Your task to perform on an android device: When is my next meeting? Image 0: 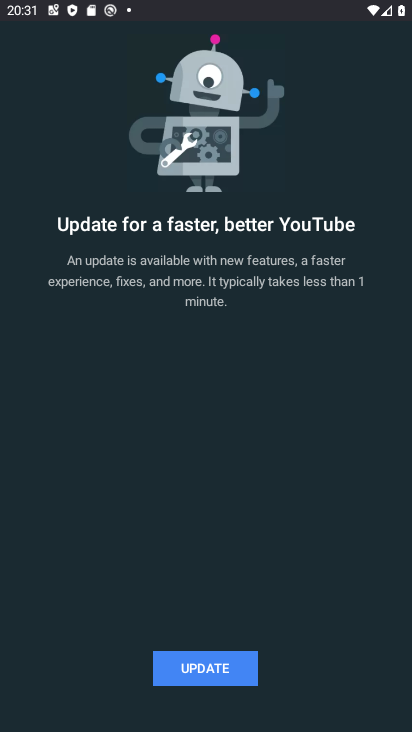
Step 0: press home button
Your task to perform on an android device: When is my next meeting? Image 1: 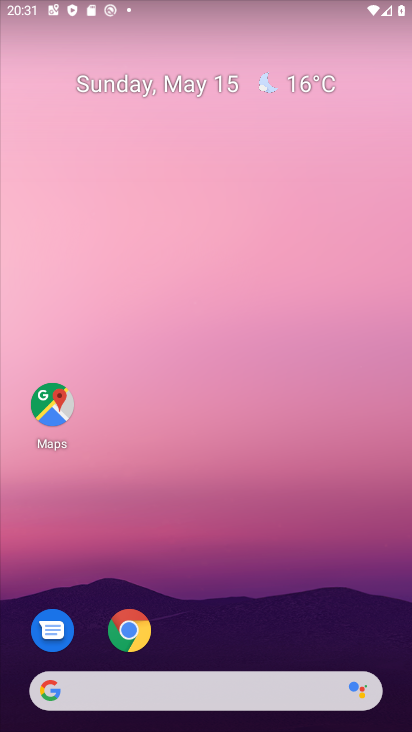
Step 1: drag from (234, 599) to (288, 111)
Your task to perform on an android device: When is my next meeting? Image 2: 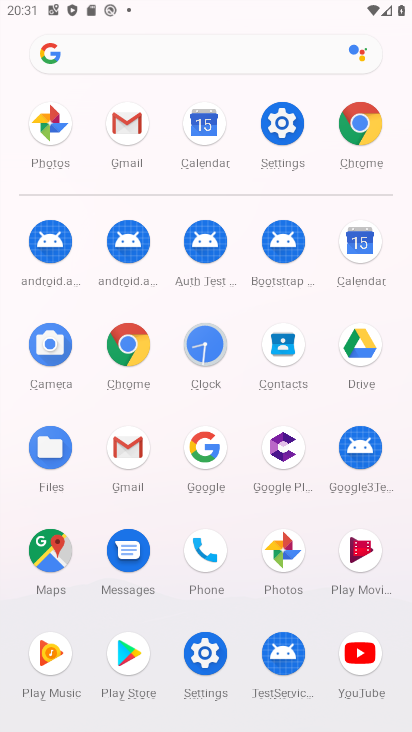
Step 2: click (357, 249)
Your task to perform on an android device: When is my next meeting? Image 3: 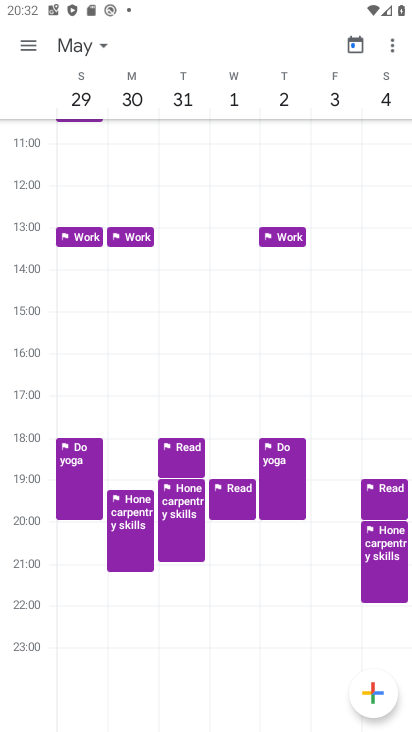
Step 3: click (27, 35)
Your task to perform on an android device: When is my next meeting? Image 4: 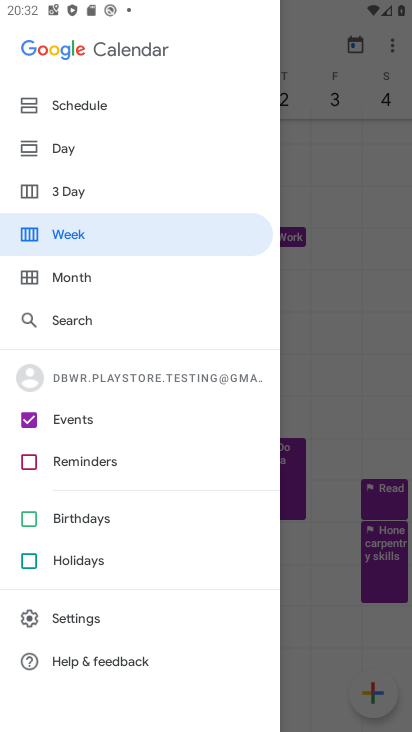
Step 4: click (95, 108)
Your task to perform on an android device: When is my next meeting? Image 5: 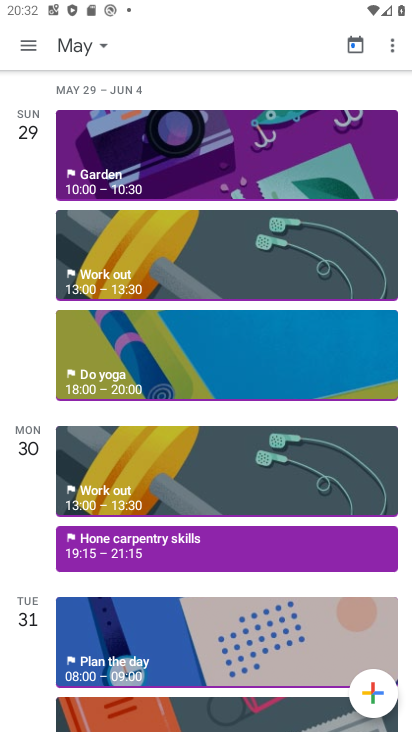
Step 5: task complete